Your task to perform on an android device: create a new album in the google photos Image 0: 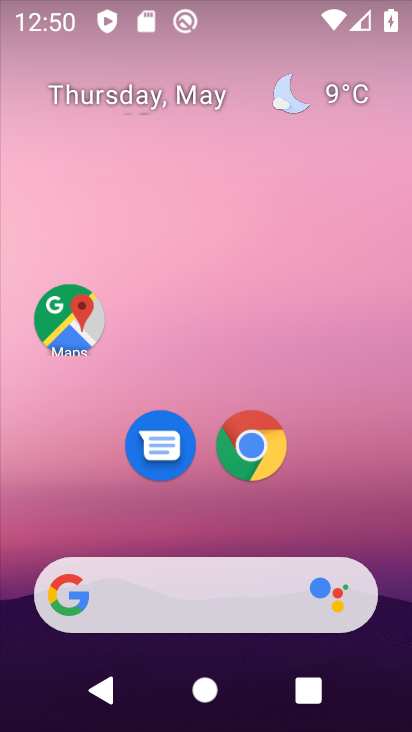
Step 0: drag from (265, 504) to (286, 39)
Your task to perform on an android device: create a new album in the google photos Image 1: 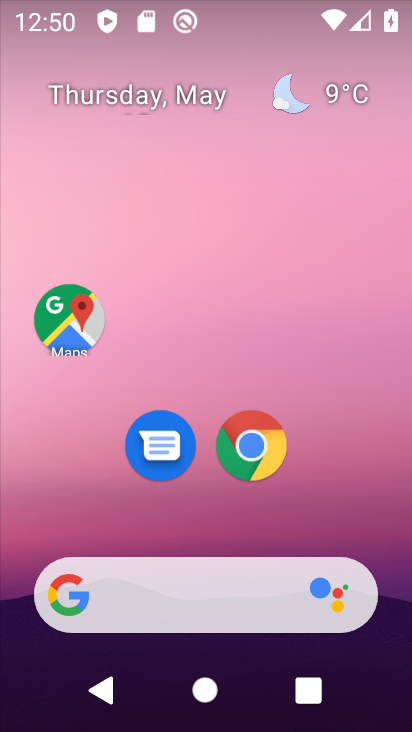
Step 1: drag from (327, 421) to (327, 67)
Your task to perform on an android device: create a new album in the google photos Image 2: 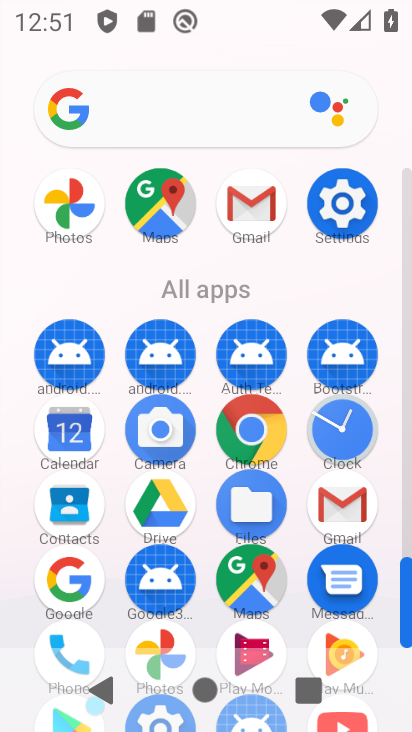
Step 2: drag from (198, 606) to (216, 256)
Your task to perform on an android device: create a new album in the google photos Image 3: 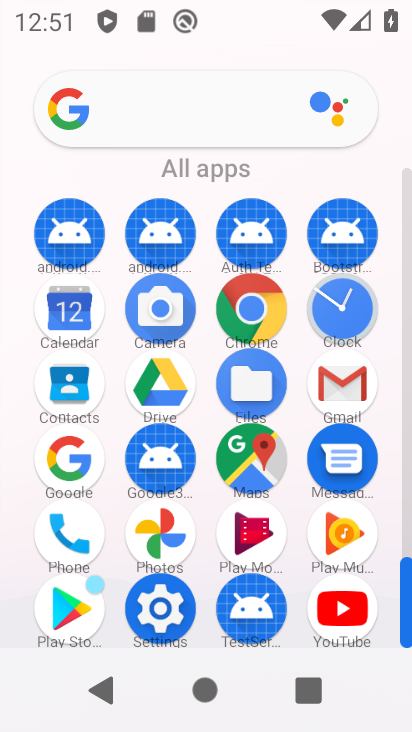
Step 3: click (163, 524)
Your task to perform on an android device: create a new album in the google photos Image 4: 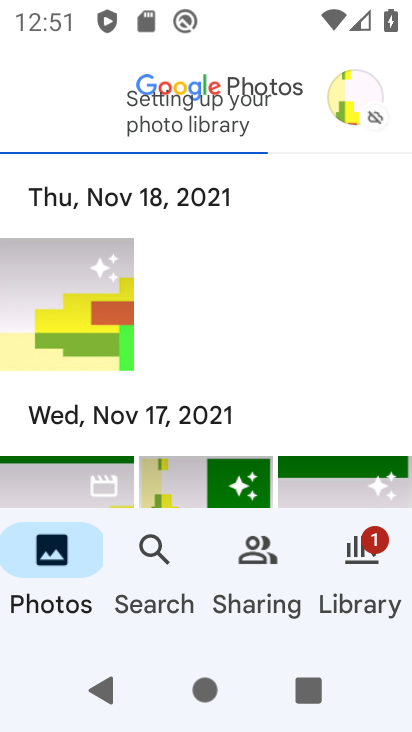
Step 4: click (371, 583)
Your task to perform on an android device: create a new album in the google photos Image 5: 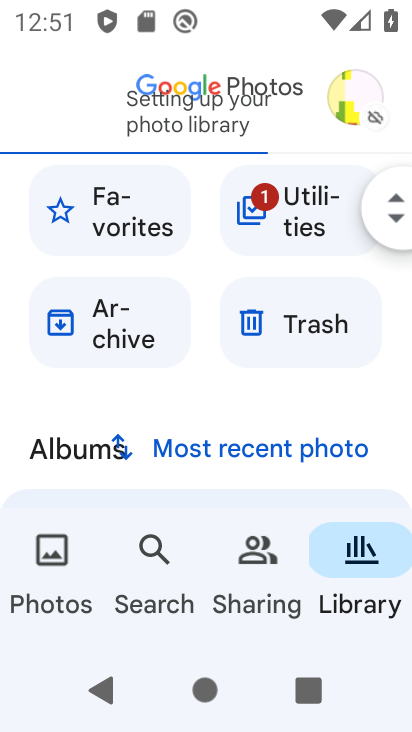
Step 5: drag from (238, 408) to (270, 120)
Your task to perform on an android device: create a new album in the google photos Image 6: 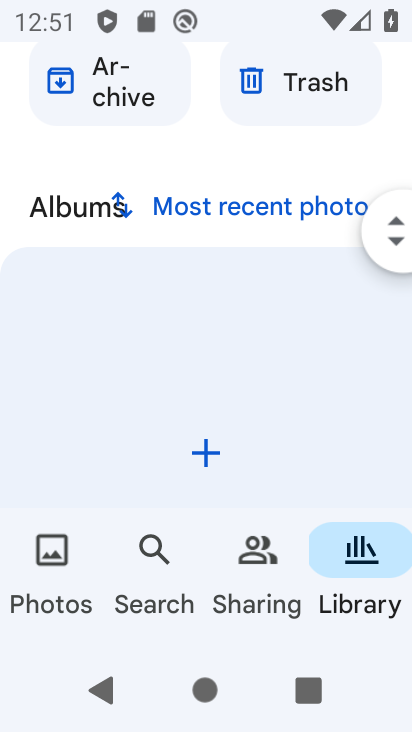
Step 6: click (205, 448)
Your task to perform on an android device: create a new album in the google photos Image 7: 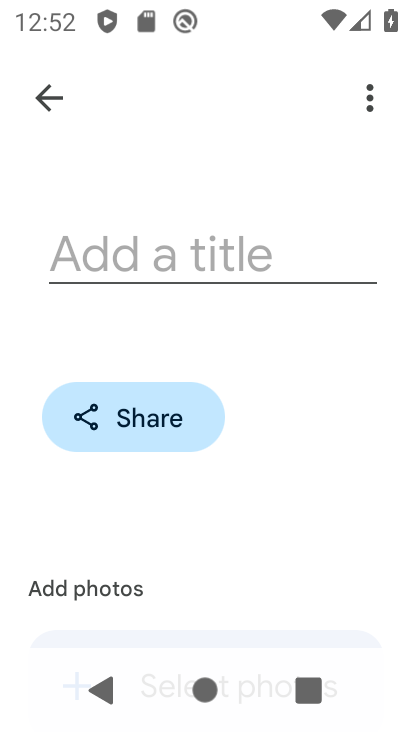
Step 7: click (190, 246)
Your task to perform on an android device: create a new album in the google photos Image 8: 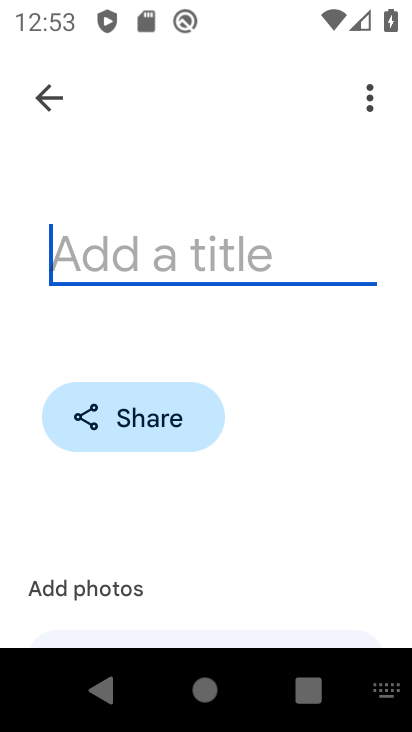
Step 8: type "gvhf"
Your task to perform on an android device: create a new album in the google photos Image 9: 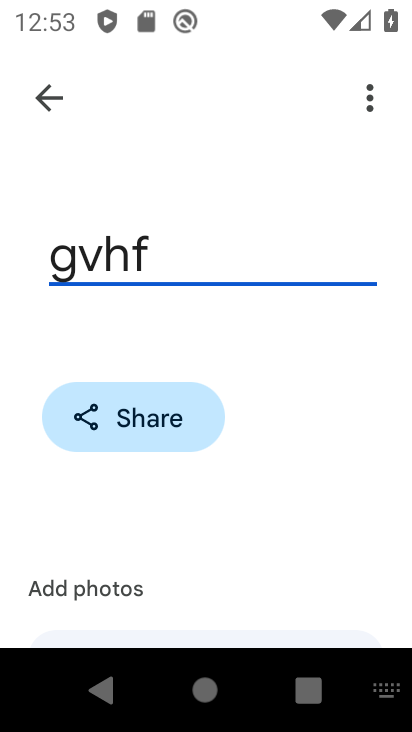
Step 9: drag from (182, 579) to (256, 173)
Your task to perform on an android device: create a new album in the google photos Image 10: 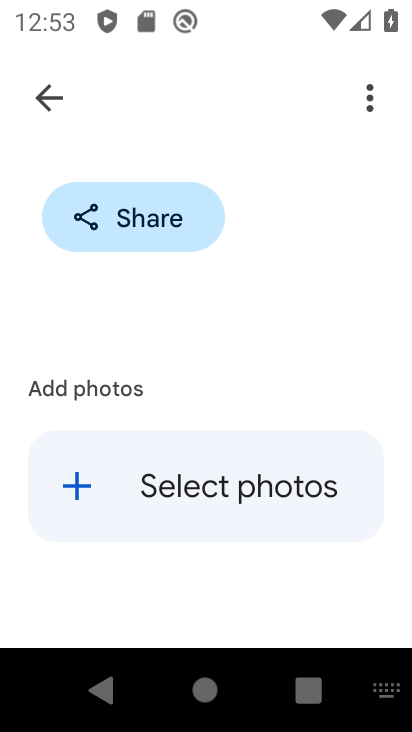
Step 10: click (166, 508)
Your task to perform on an android device: create a new album in the google photos Image 11: 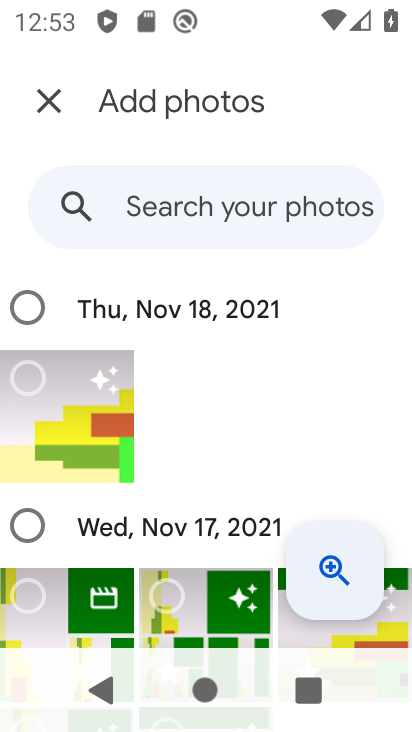
Step 11: click (29, 384)
Your task to perform on an android device: create a new album in the google photos Image 12: 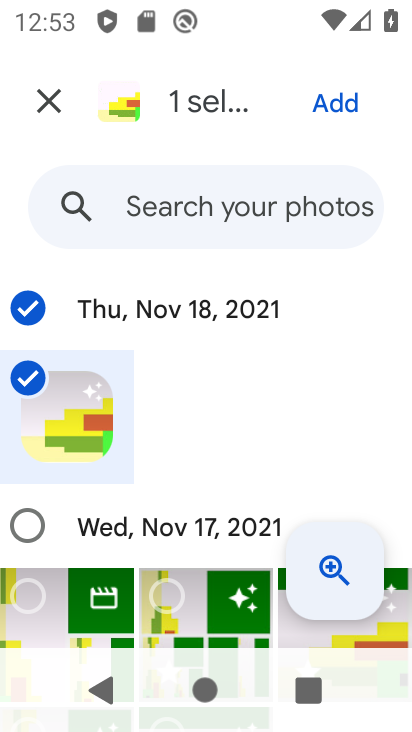
Step 12: click (29, 582)
Your task to perform on an android device: create a new album in the google photos Image 13: 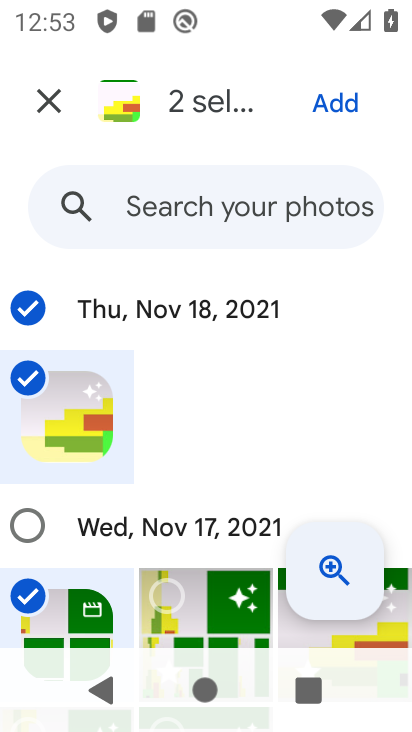
Step 13: click (339, 96)
Your task to perform on an android device: create a new album in the google photos Image 14: 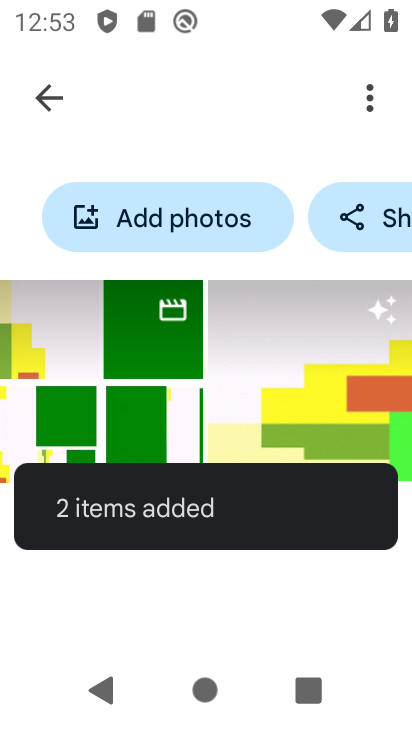
Step 14: task complete